Your task to perform on an android device: install app "Life360: Find Family & Friends" Image 0: 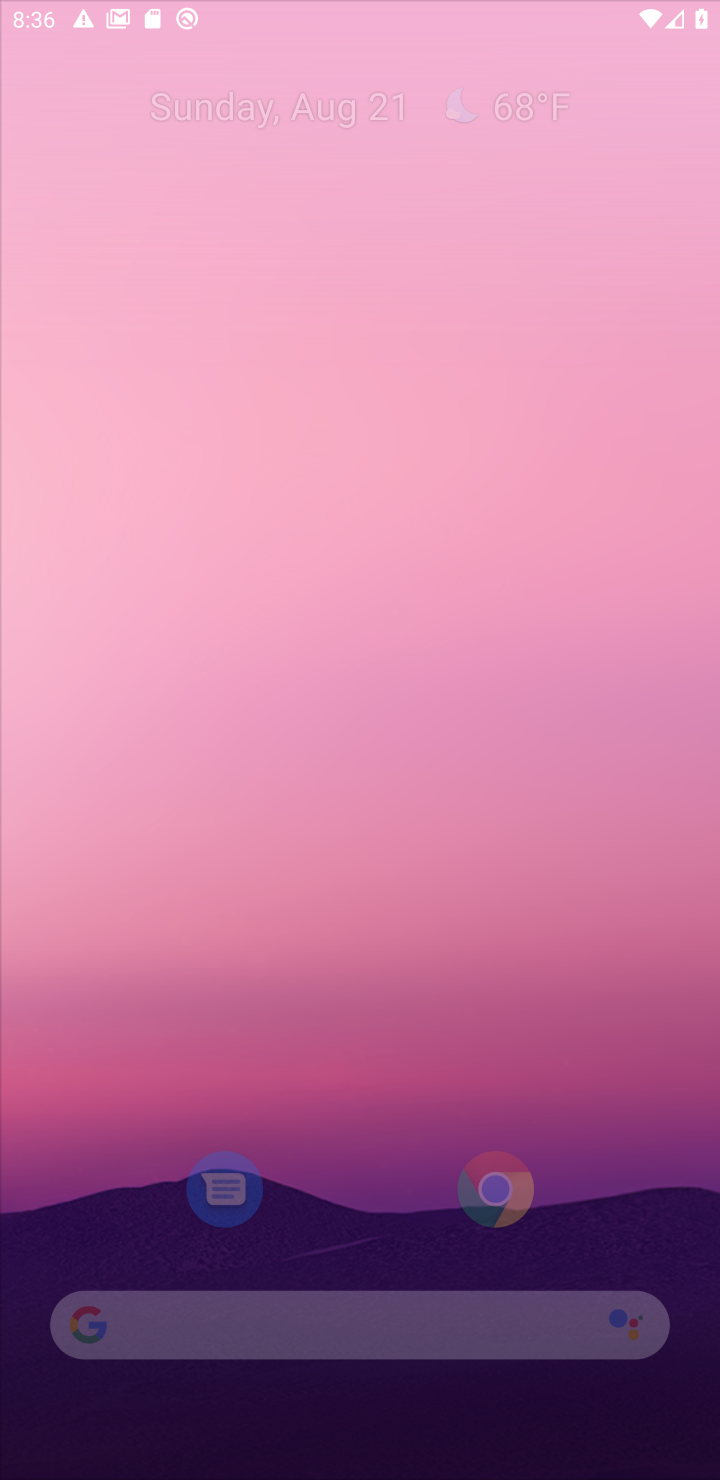
Step 0: press back button
Your task to perform on an android device: install app "Life360: Find Family & Friends" Image 1: 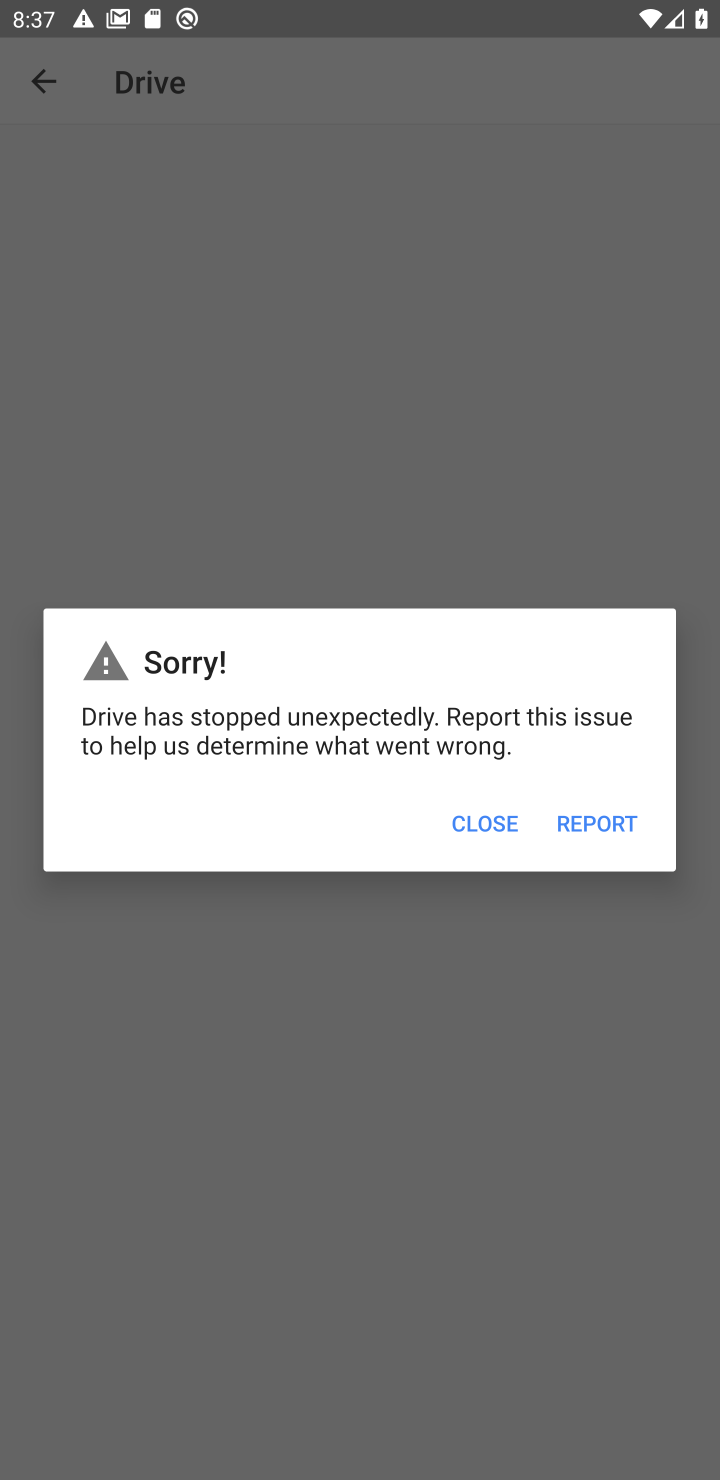
Step 1: click (466, 797)
Your task to perform on an android device: install app "Life360: Find Family & Friends" Image 2: 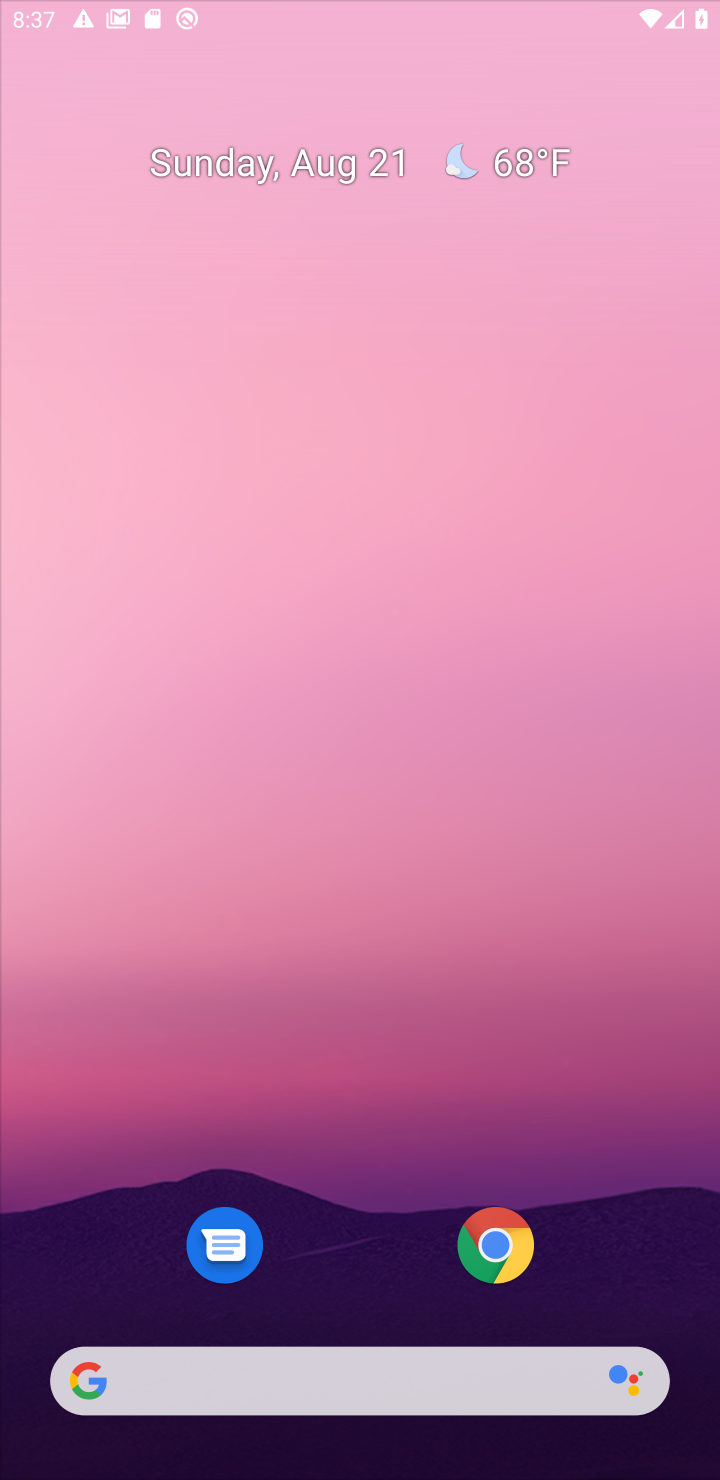
Step 2: press home button
Your task to perform on an android device: install app "Life360: Find Family & Friends" Image 3: 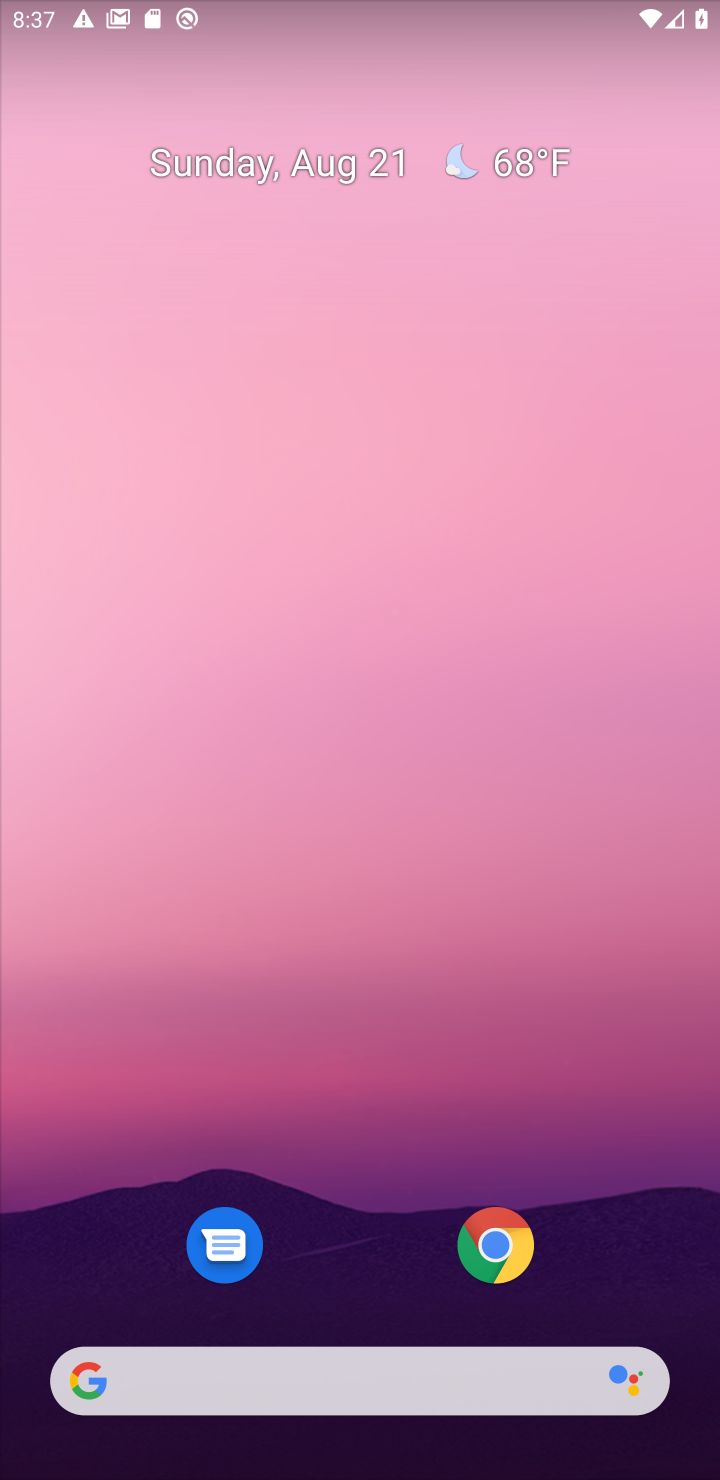
Step 3: drag from (338, 1293) to (419, 13)
Your task to perform on an android device: install app "Life360: Find Family & Friends" Image 4: 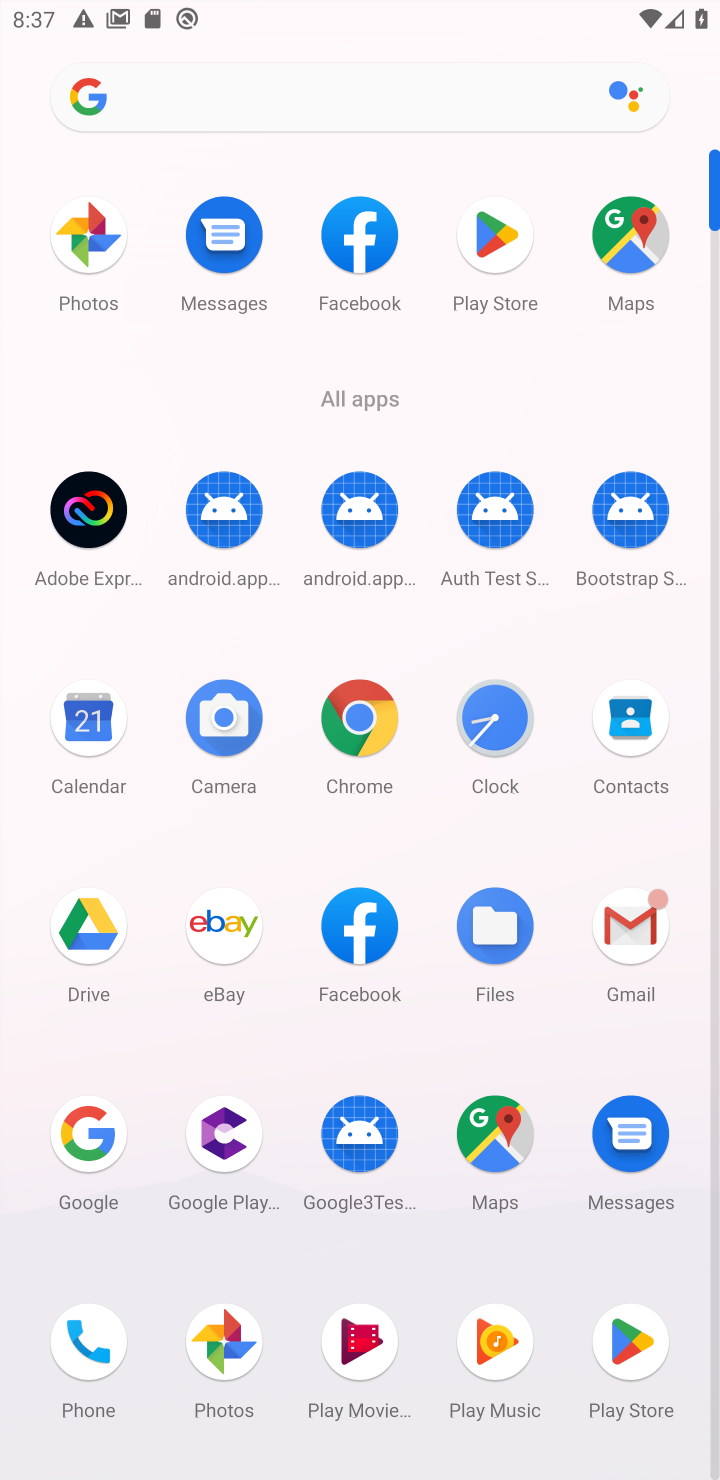
Step 4: click (656, 1384)
Your task to perform on an android device: install app "Life360: Find Family & Friends" Image 5: 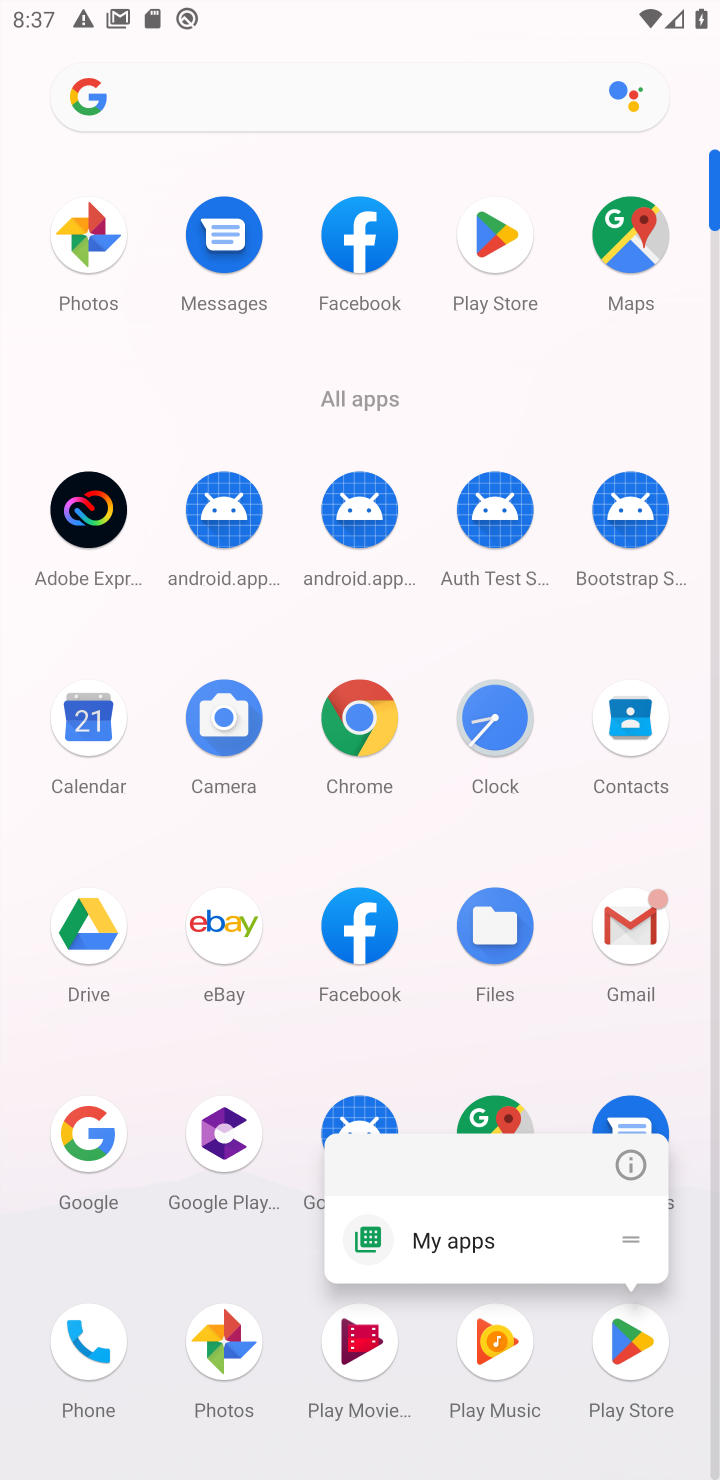
Step 5: click (625, 1364)
Your task to perform on an android device: install app "Life360: Find Family & Friends" Image 6: 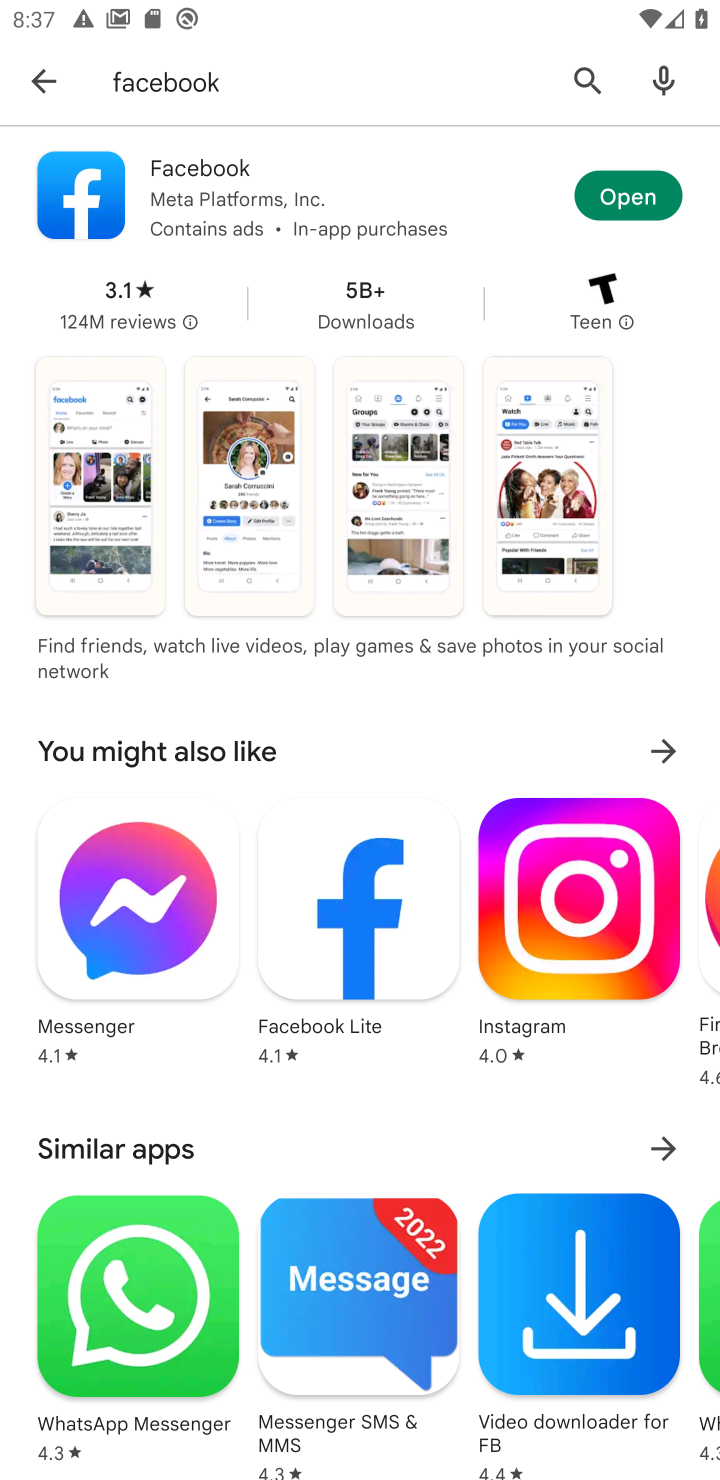
Step 6: click (1, 62)
Your task to perform on an android device: install app "Life360: Find Family & Friends" Image 7: 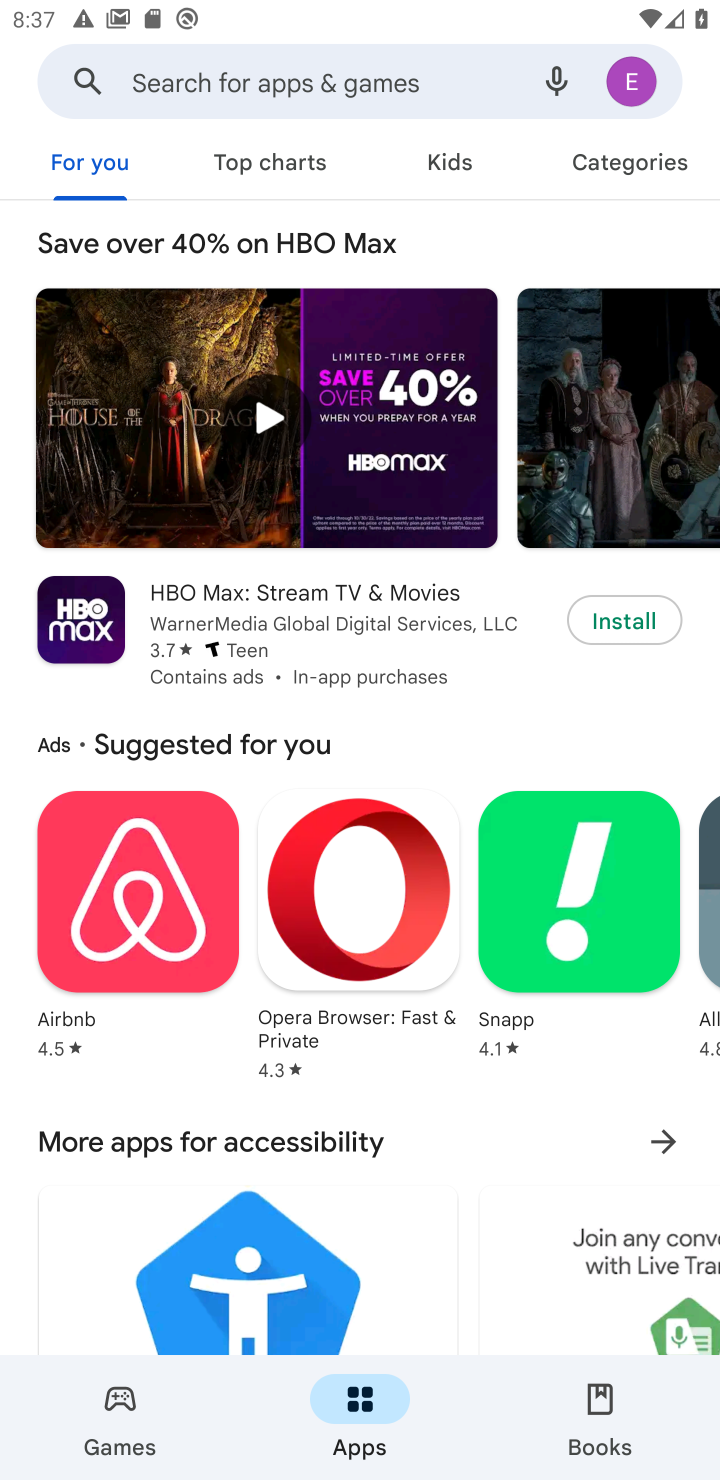
Step 7: click (293, 76)
Your task to perform on an android device: install app "Life360: Find Family & Friends" Image 8: 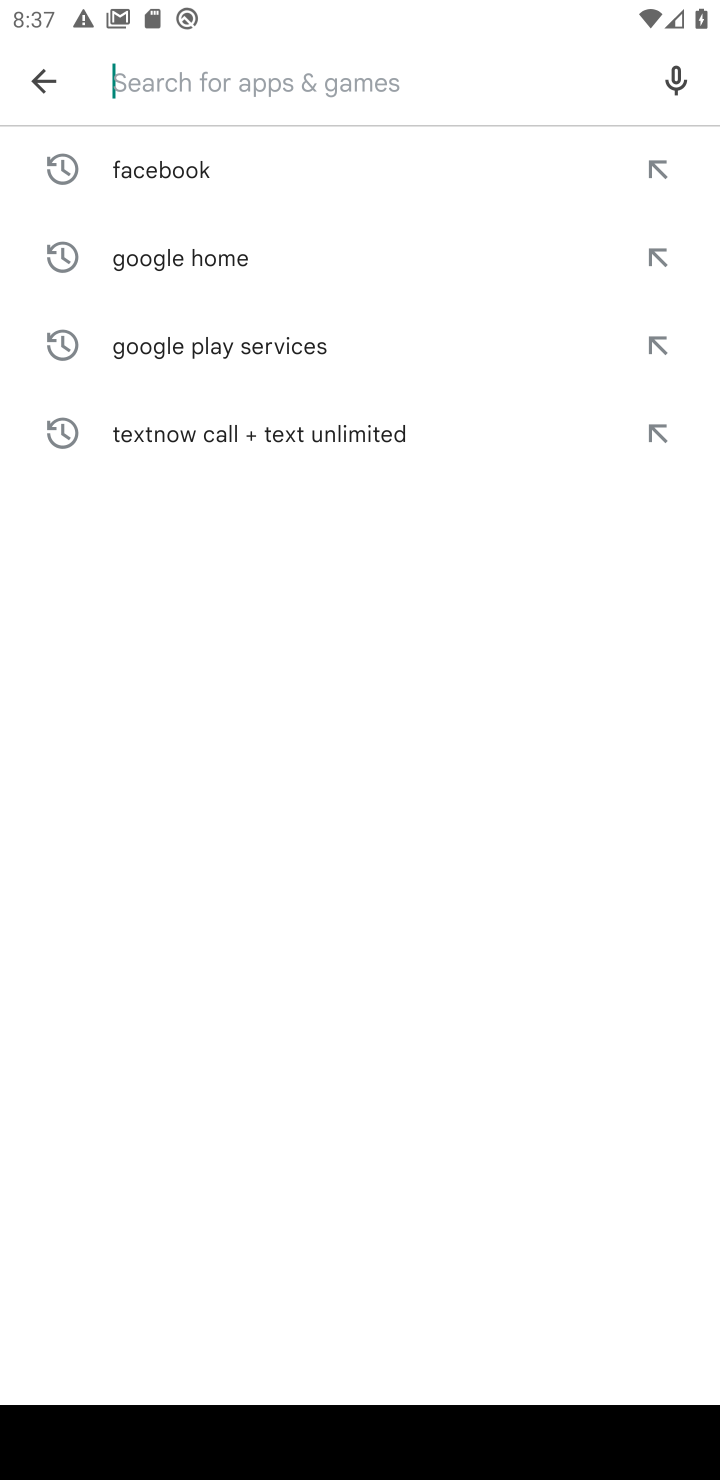
Step 8: type "Life360: Find Family & Friends"
Your task to perform on an android device: install app "Life360: Find Family & Friends" Image 9: 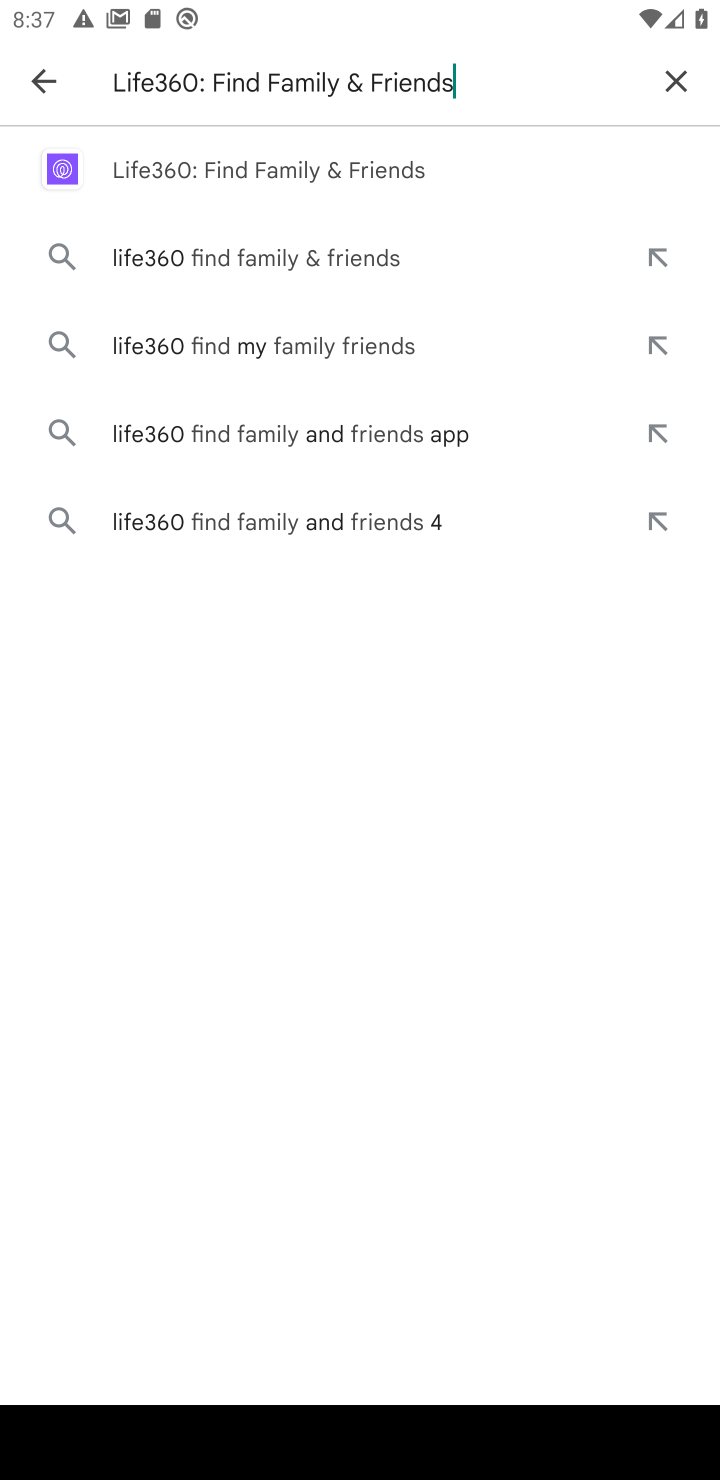
Step 9: click (69, 203)
Your task to perform on an android device: install app "Life360: Find Family & Friends" Image 10: 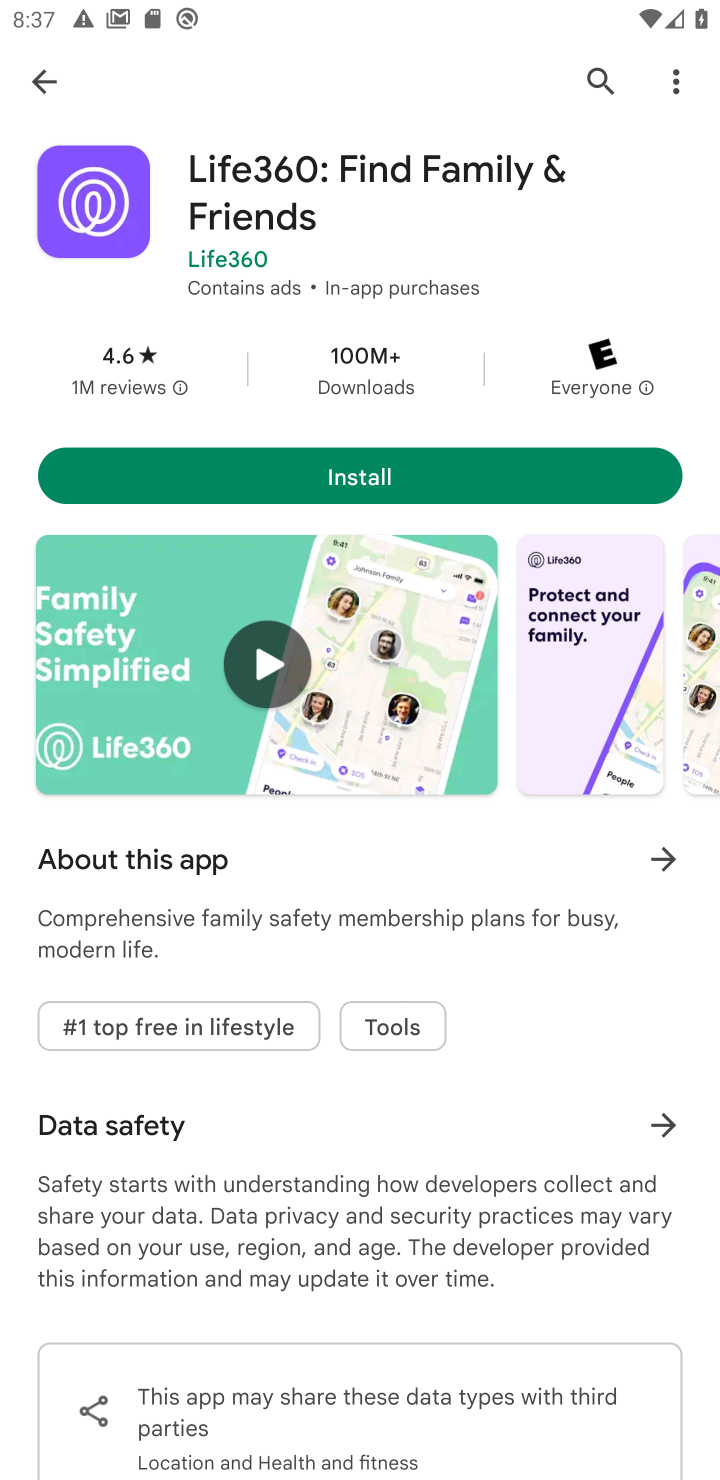
Step 10: click (556, 466)
Your task to perform on an android device: install app "Life360: Find Family & Friends" Image 11: 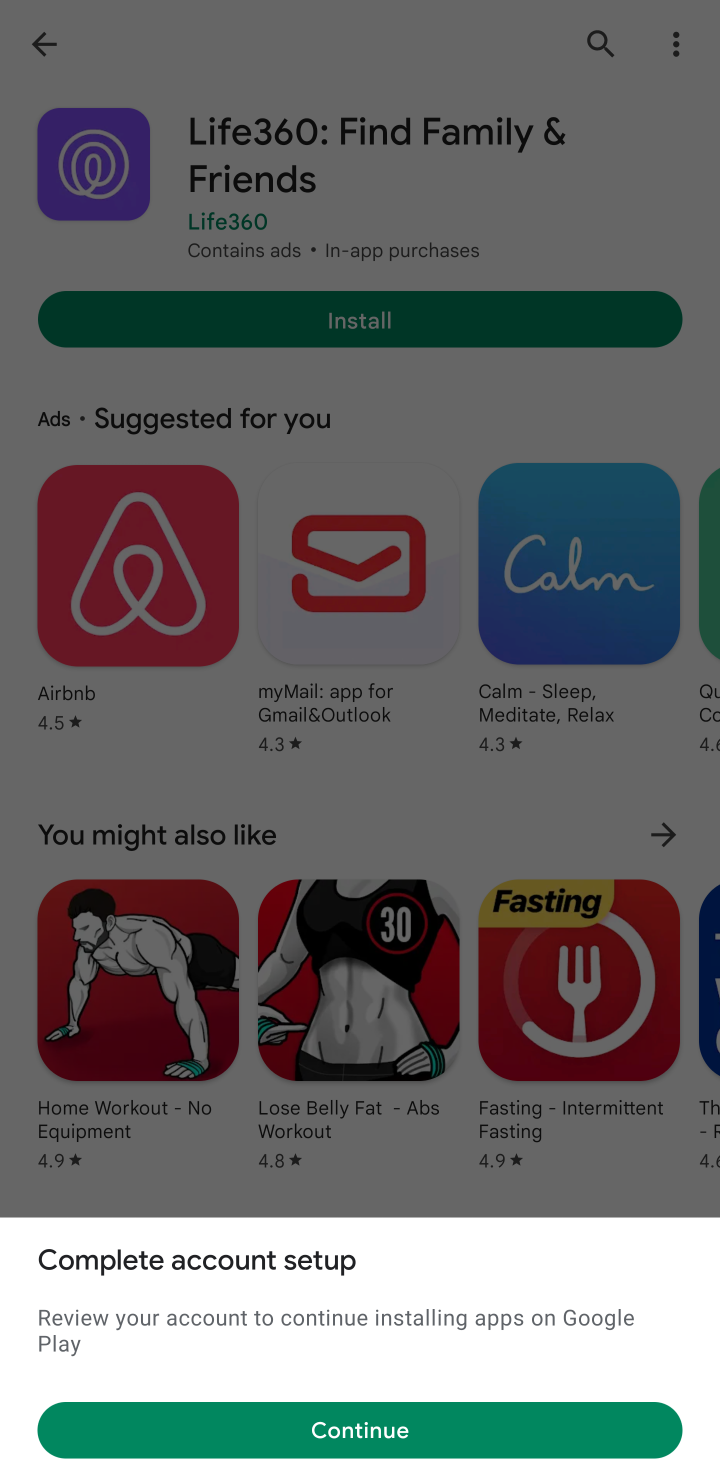
Step 11: click (320, 1436)
Your task to perform on an android device: install app "Life360: Find Family & Friends" Image 12: 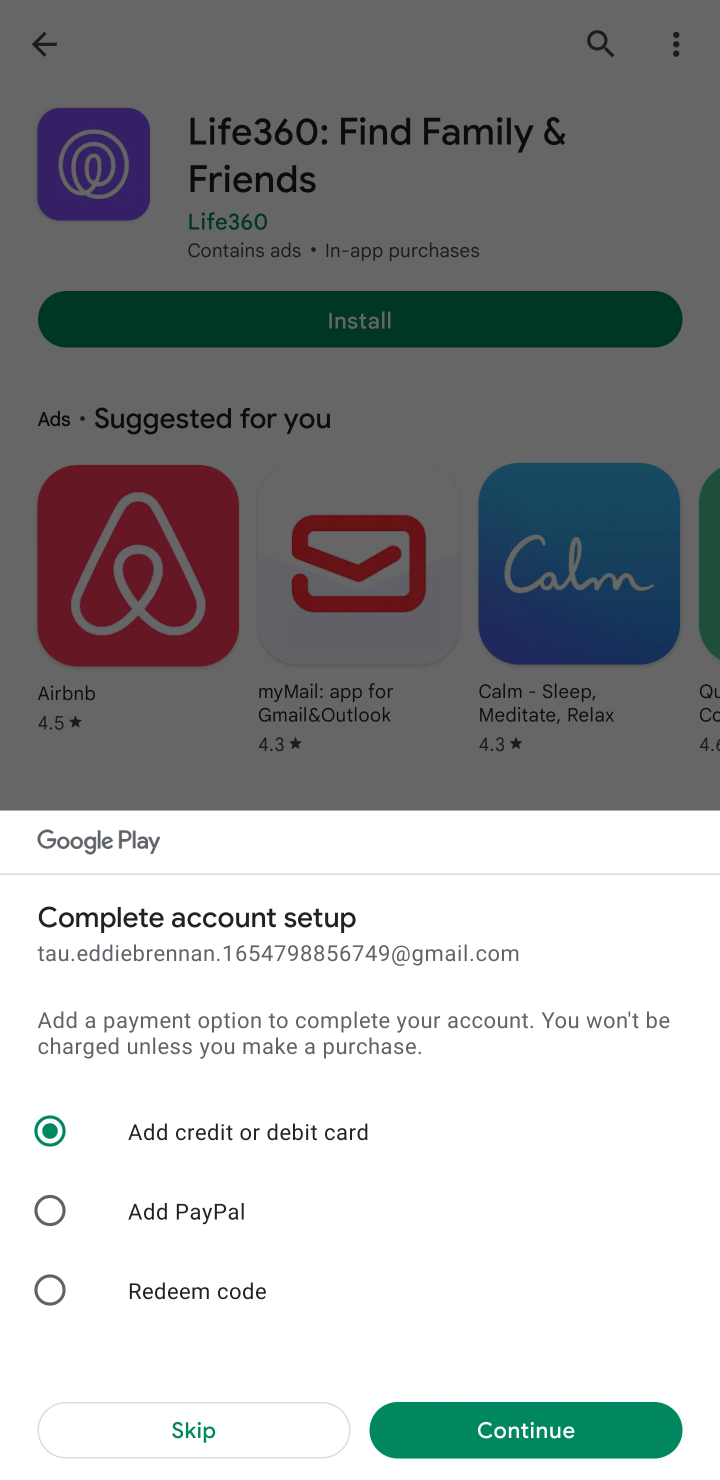
Step 12: click (237, 1434)
Your task to perform on an android device: install app "Life360: Find Family & Friends" Image 13: 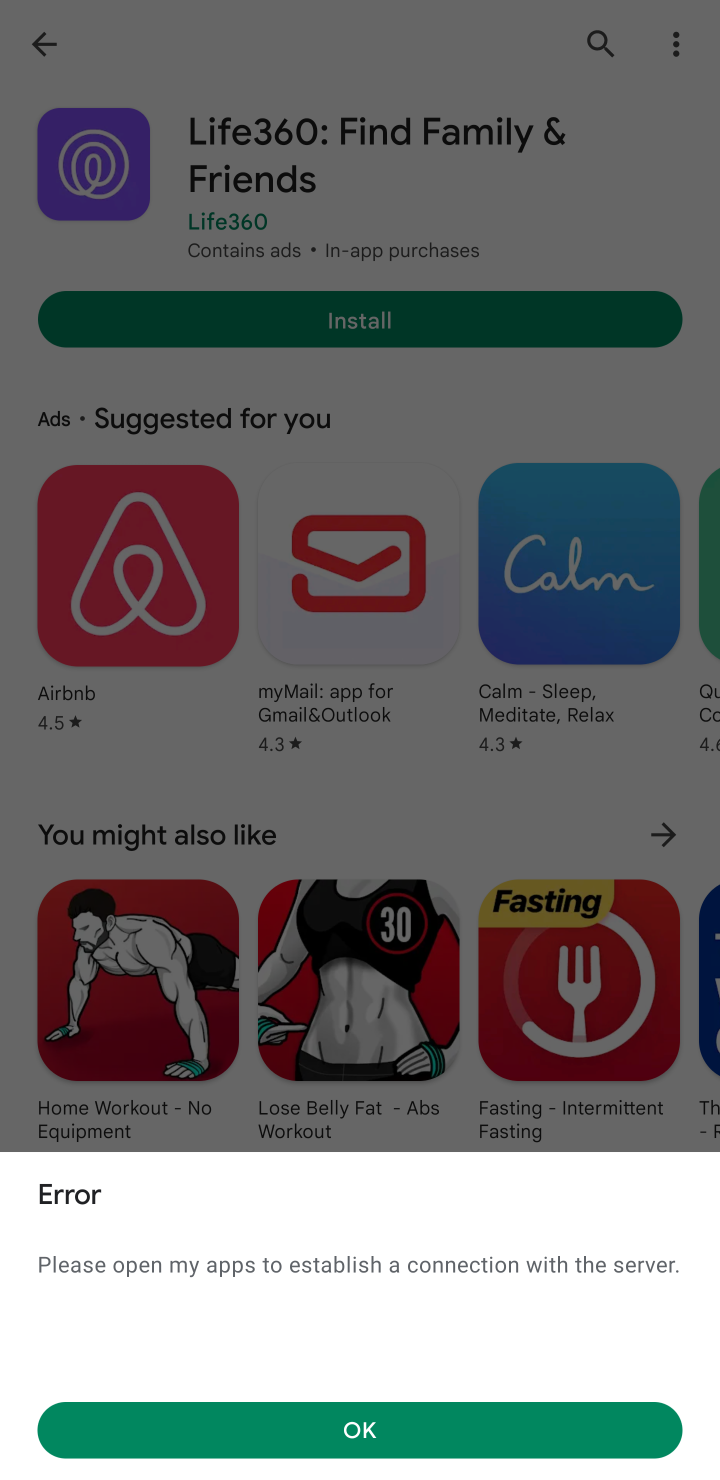
Step 13: click (233, 1431)
Your task to perform on an android device: install app "Life360: Find Family & Friends" Image 14: 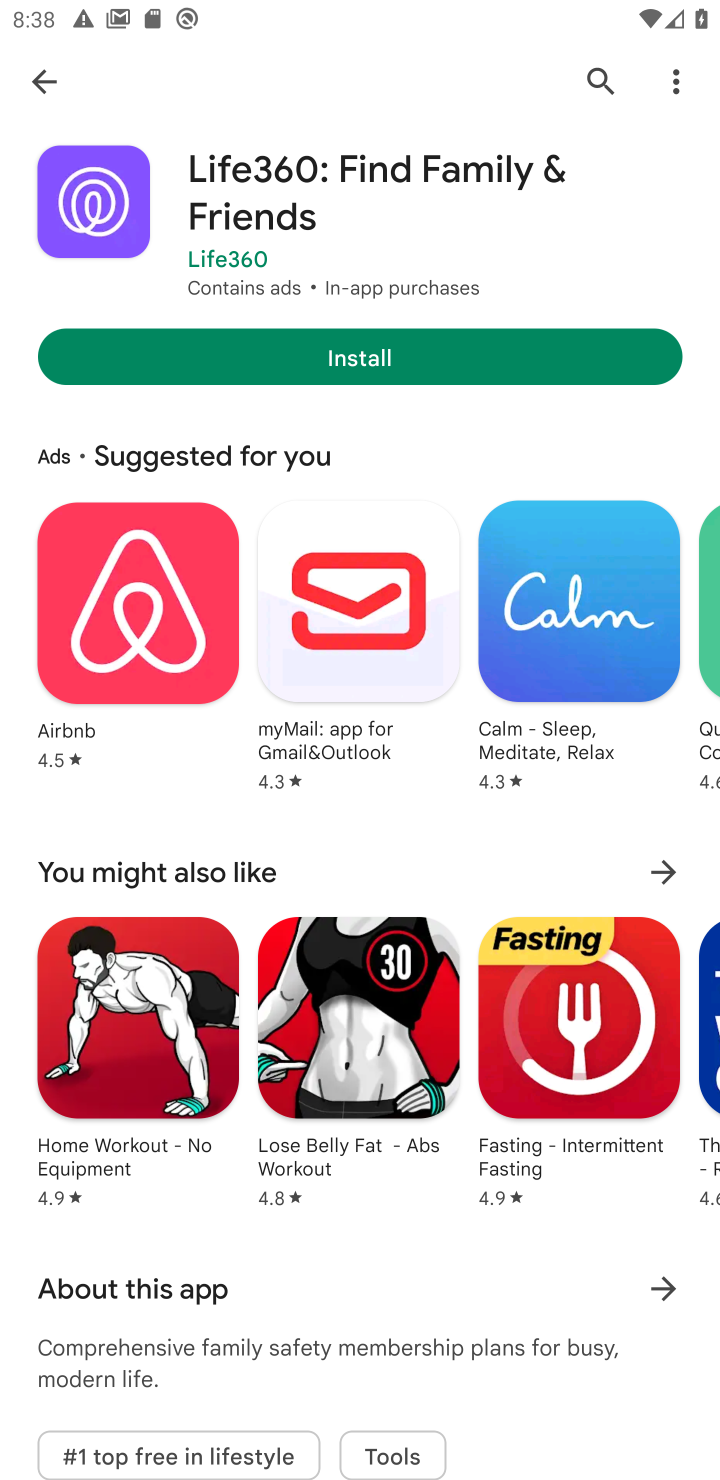
Step 14: task complete